Your task to perform on an android device: How much does a 3 bedroom apartment rent for in Philadelphia? Image 0: 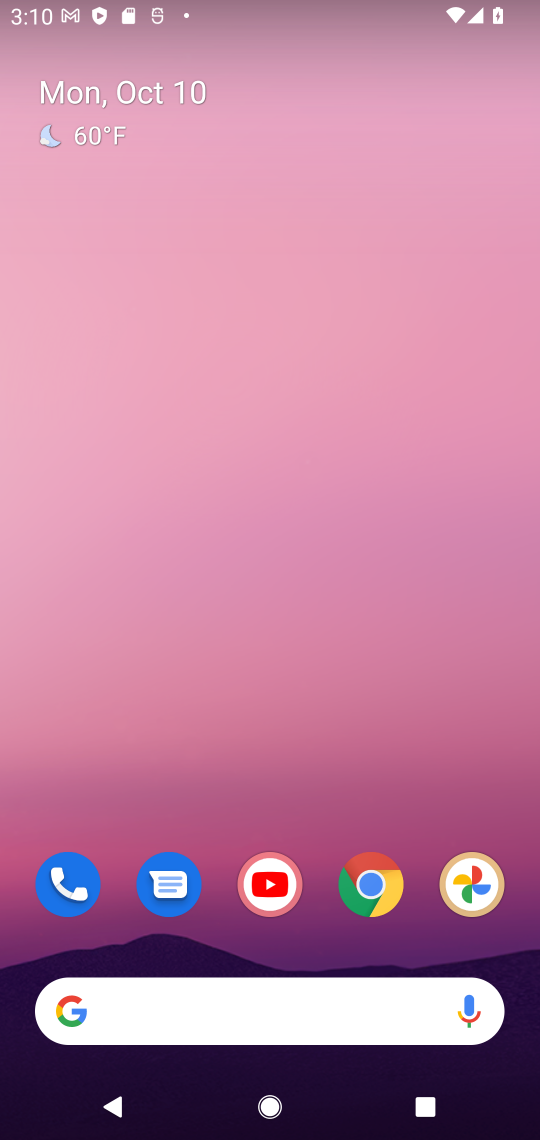
Step 0: click (372, 897)
Your task to perform on an android device: How much does a 3 bedroom apartment rent for in Philadelphia? Image 1: 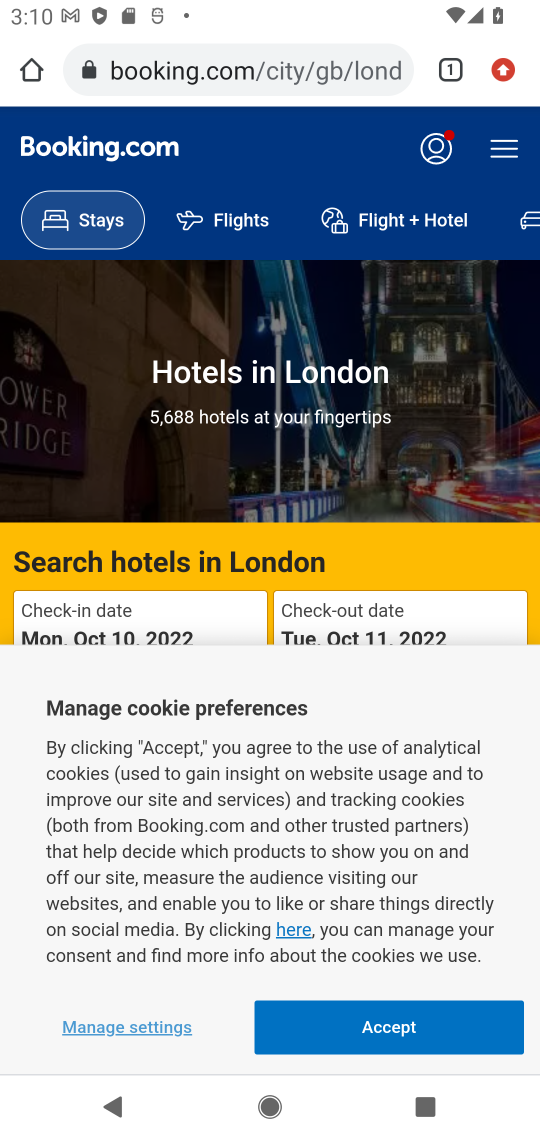
Step 1: click (194, 63)
Your task to perform on an android device: How much does a 3 bedroom apartment rent for in Philadelphia? Image 2: 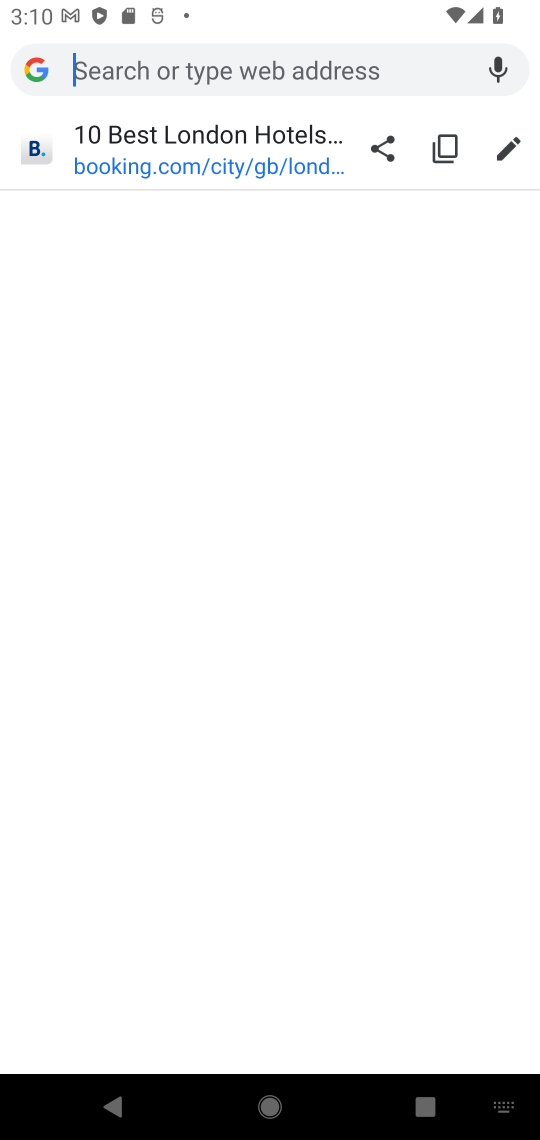
Step 2: type "How much does a 3 bedroom apartment rent for in Philadelphia?"
Your task to perform on an android device: How much does a 3 bedroom apartment rent for in Philadelphia? Image 3: 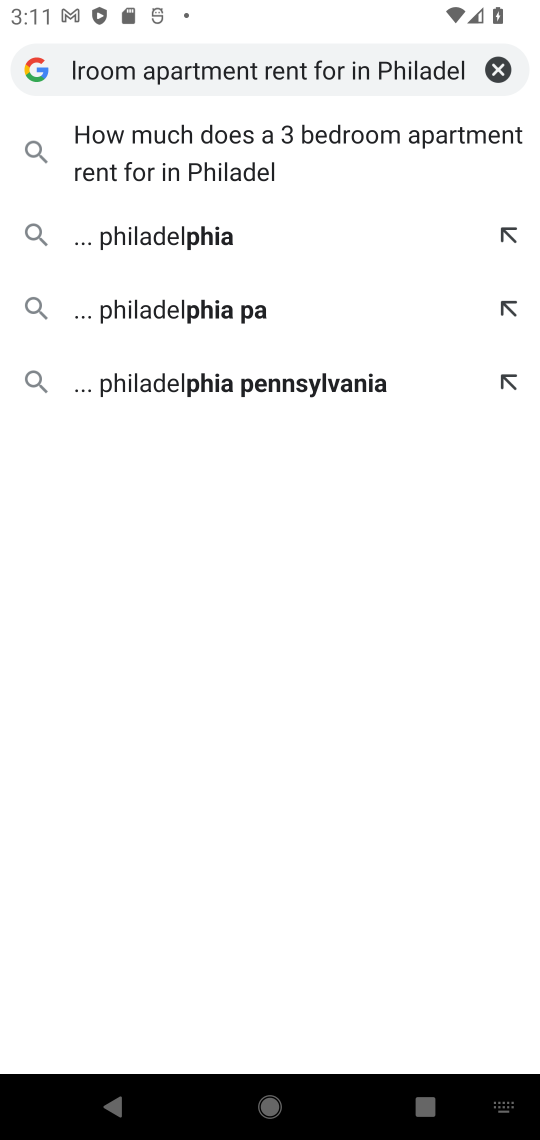
Step 3: click (162, 175)
Your task to perform on an android device: How much does a 3 bedroom apartment rent for in Philadelphia? Image 4: 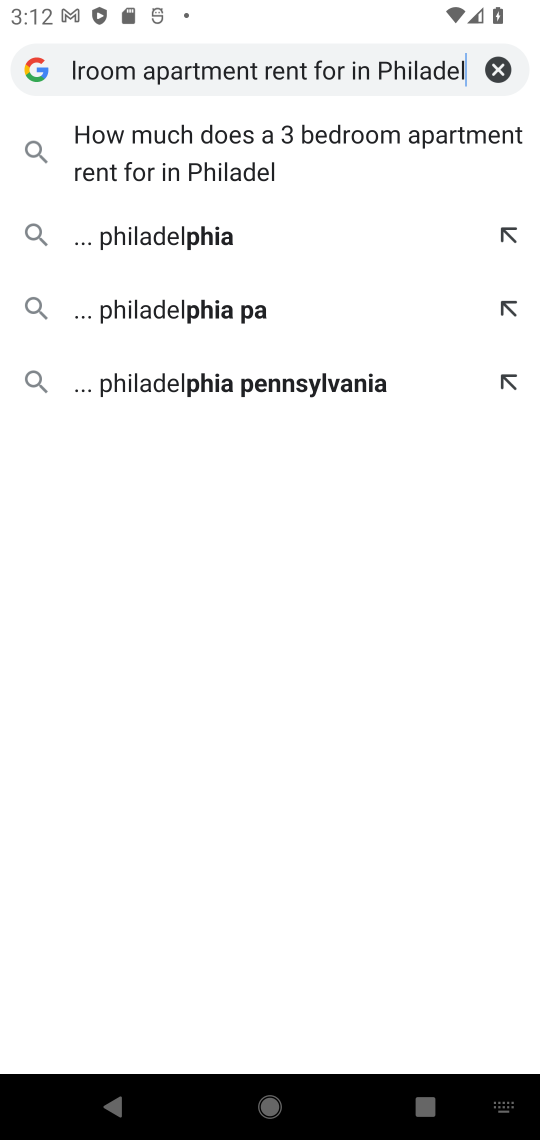
Step 4: type "phia"
Your task to perform on an android device: How much does a 3 bedroom apartment rent for in Philadelphia? Image 5: 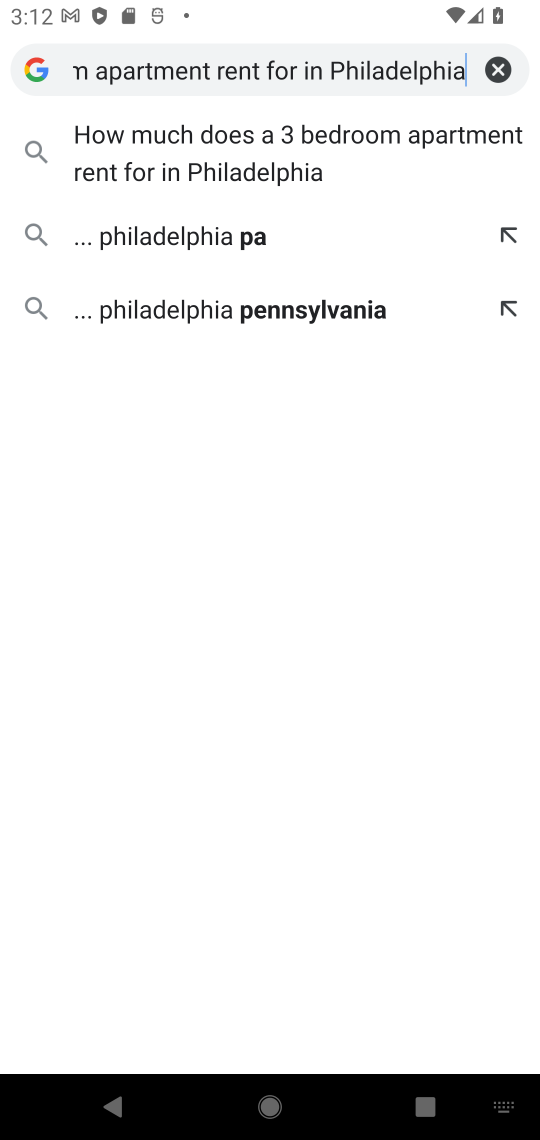
Step 5: click (285, 181)
Your task to perform on an android device: How much does a 3 bedroom apartment rent for in Philadelphia? Image 6: 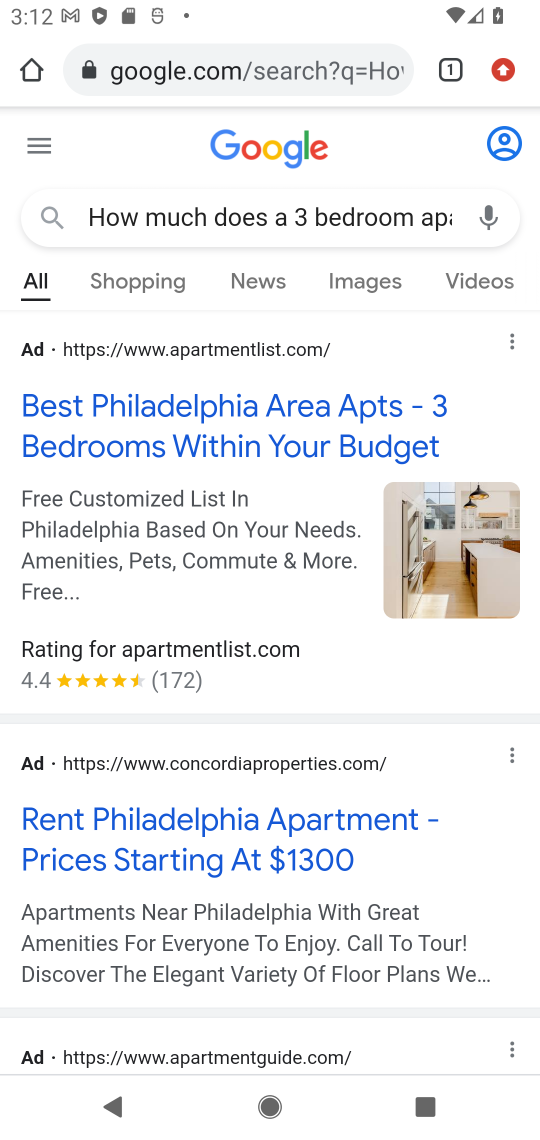
Step 6: click (197, 449)
Your task to perform on an android device: How much does a 3 bedroom apartment rent for in Philadelphia? Image 7: 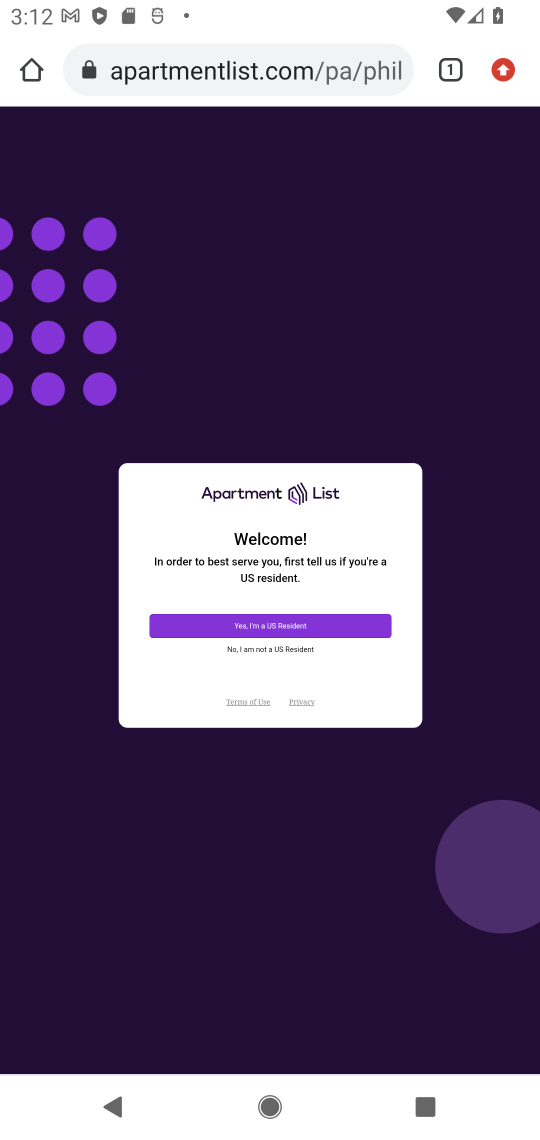
Step 7: press back button
Your task to perform on an android device: How much does a 3 bedroom apartment rent for in Philadelphia? Image 8: 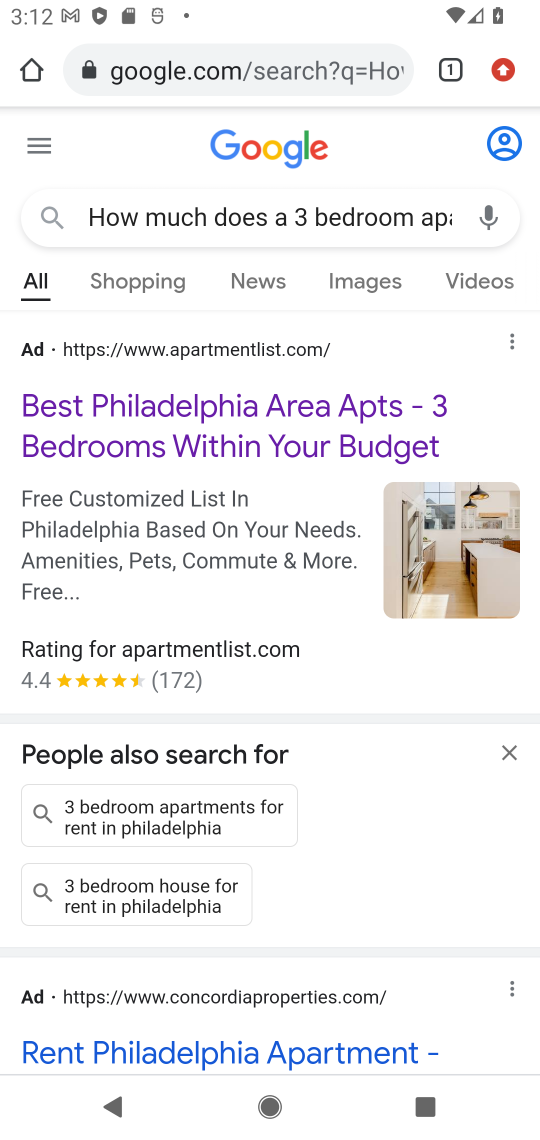
Step 8: drag from (203, 708) to (204, 223)
Your task to perform on an android device: How much does a 3 bedroom apartment rent for in Philadelphia? Image 9: 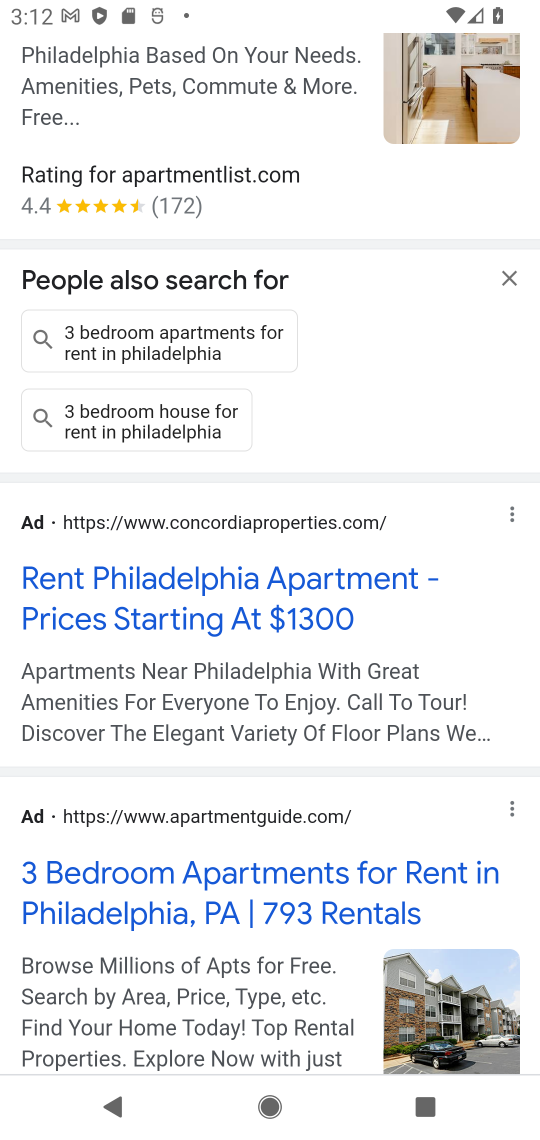
Step 9: click (161, 589)
Your task to perform on an android device: How much does a 3 bedroom apartment rent for in Philadelphia? Image 10: 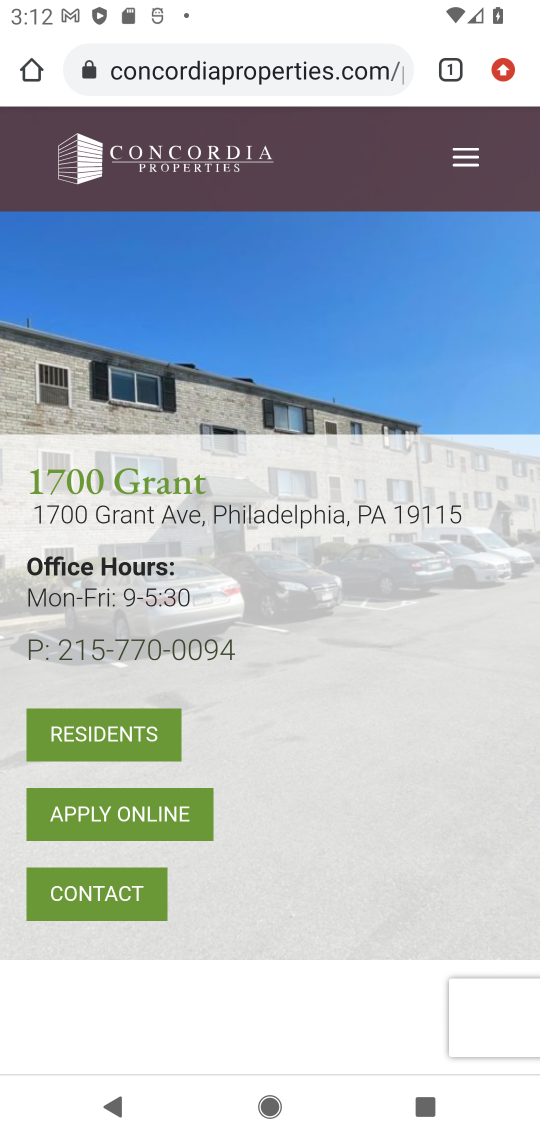
Step 10: task complete